Your task to perform on an android device: turn on airplane mode Image 0: 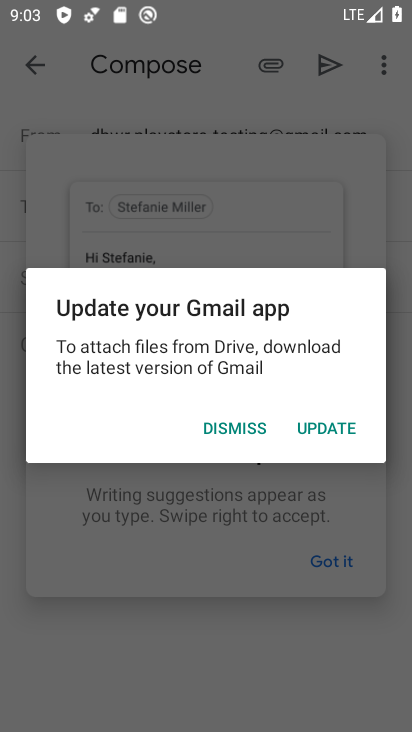
Step 0: press home button
Your task to perform on an android device: turn on airplane mode Image 1: 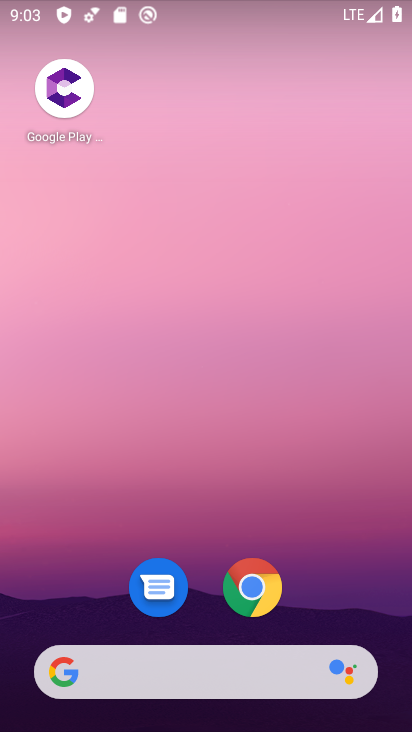
Step 1: drag from (195, 617) to (217, 242)
Your task to perform on an android device: turn on airplane mode Image 2: 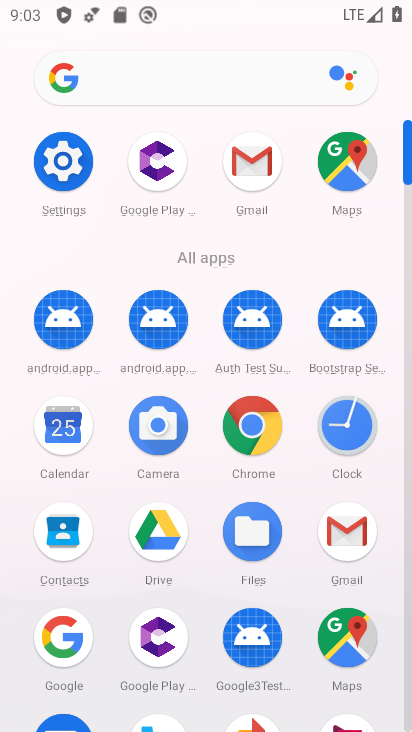
Step 2: click (47, 159)
Your task to perform on an android device: turn on airplane mode Image 3: 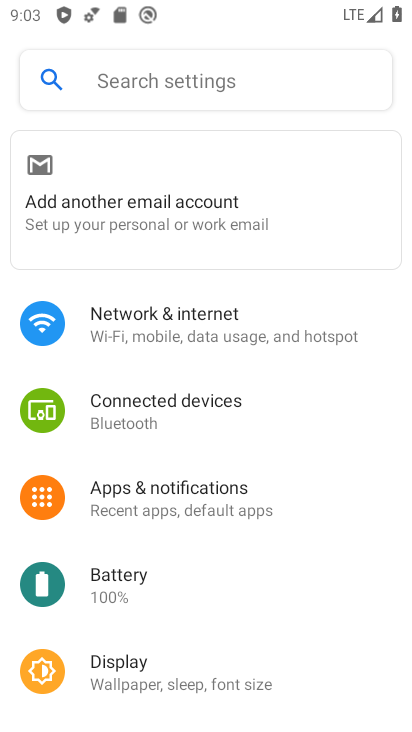
Step 3: click (138, 317)
Your task to perform on an android device: turn on airplane mode Image 4: 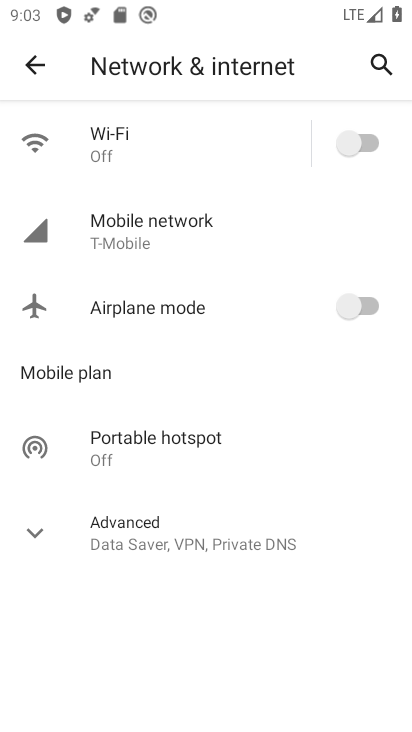
Step 4: click (345, 304)
Your task to perform on an android device: turn on airplane mode Image 5: 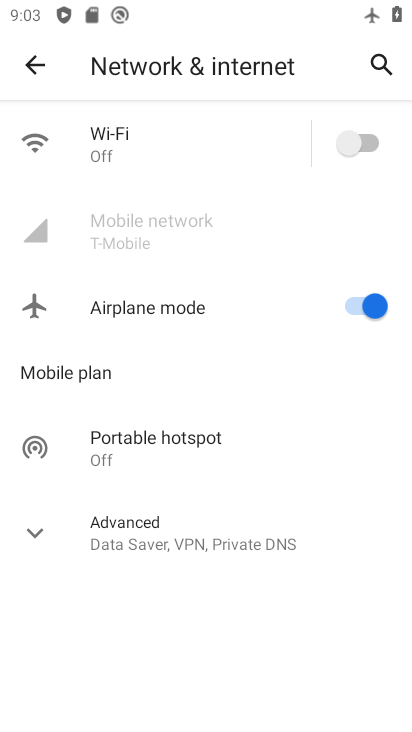
Step 5: task complete